Your task to perform on an android device: open wifi settings Image 0: 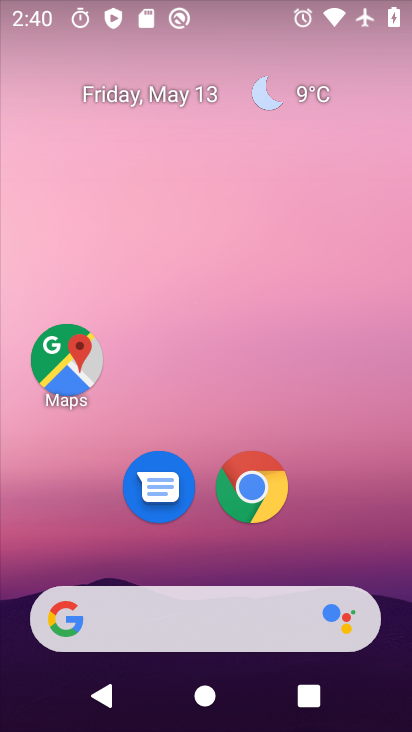
Step 0: drag from (206, 553) to (229, 66)
Your task to perform on an android device: open wifi settings Image 1: 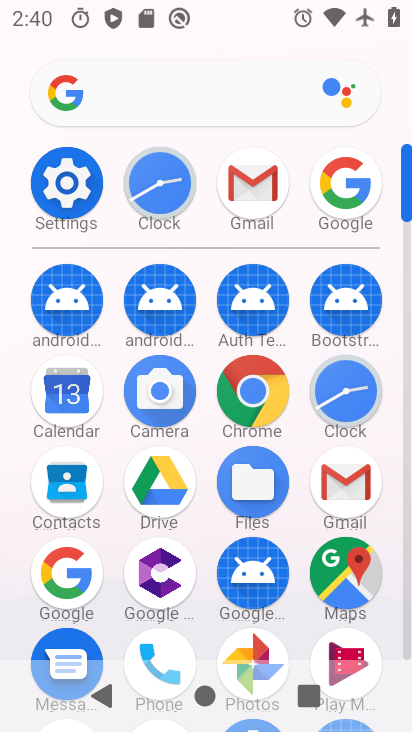
Step 1: click (70, 186)
Your task to perform on an android device: open wifi settings Image 2: 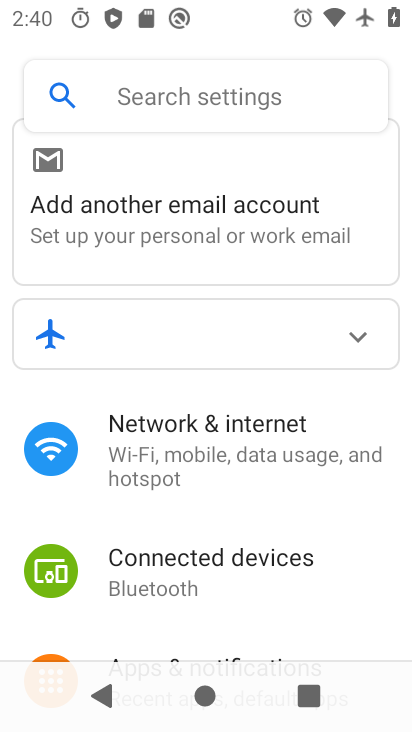
Step 2: click (209, 443)
Your task to perform on an android device: open wifi settings Image 3: 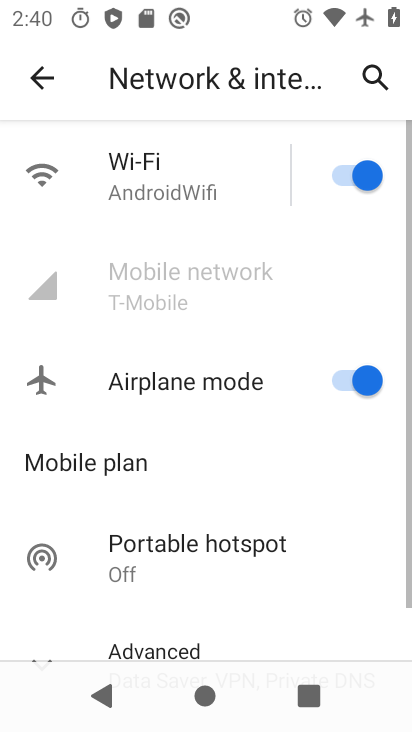
Step 3: click (207, 176)
Your task to perform on an android device: open wifi settings Image 4: 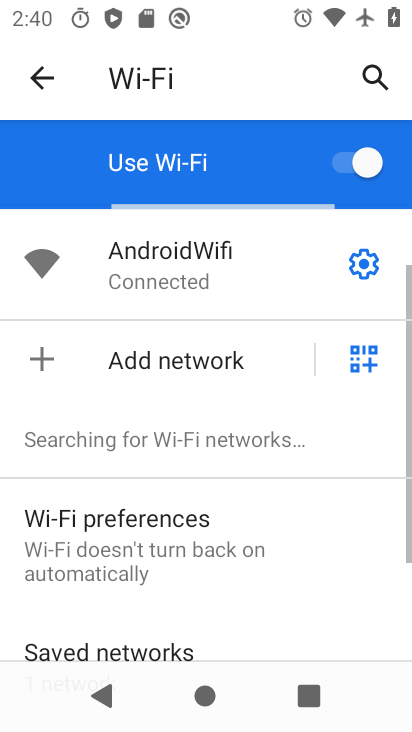
Step 4: click (365, 267)
Your task to perform on an android device: open wifi settings Image 5: 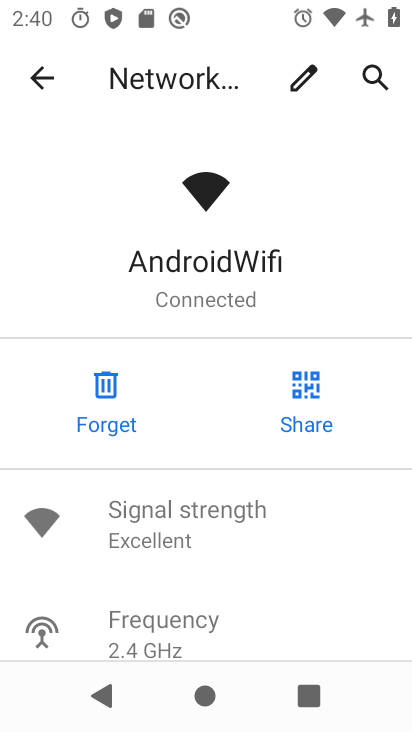
Step 5: task complete